Your task to perform on an android device: turn on bluetooth scan Image 0: 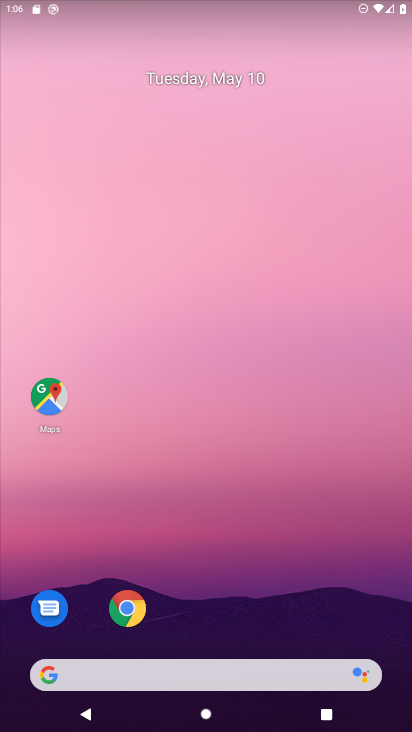
Step 0: drag from (257, 550) to (262, 216)
Your task to perform on an android device: turn on bluetooth scan Image 1: 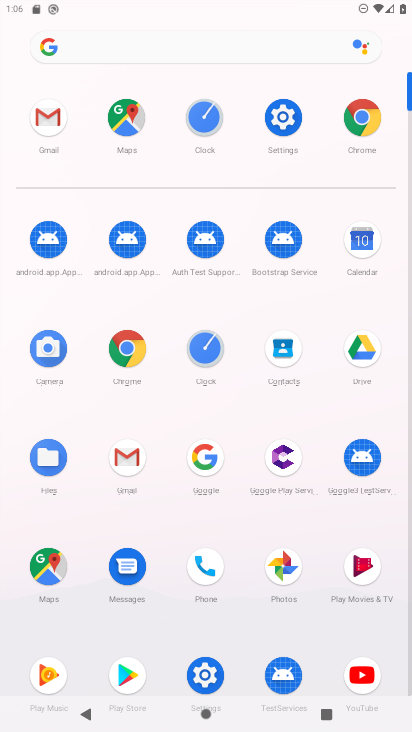
Step 1: click (206, 674)
Your task to perform on an android device: turn on bluetooth scan Image 2: 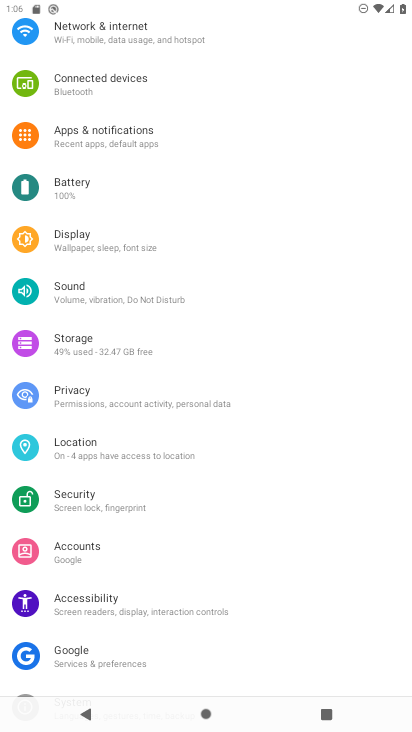
Step 2: click (139, 450)
Your task to perform on an android device: turn on bluetooth scan Image 3: 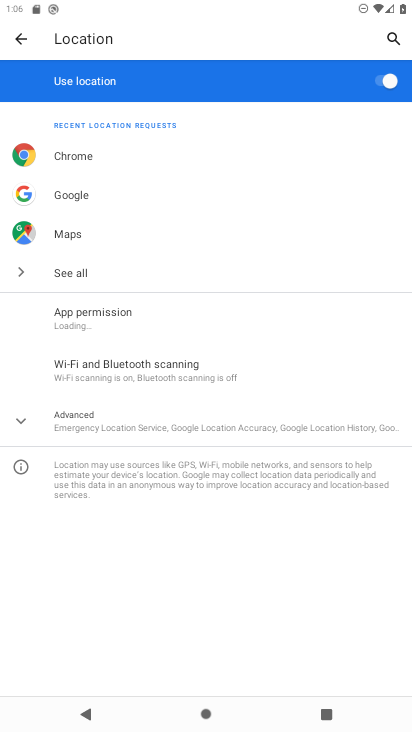
Step 3: click (162, 379)
Your task to perform on an android device: turn on bluetooth scan Image 4: 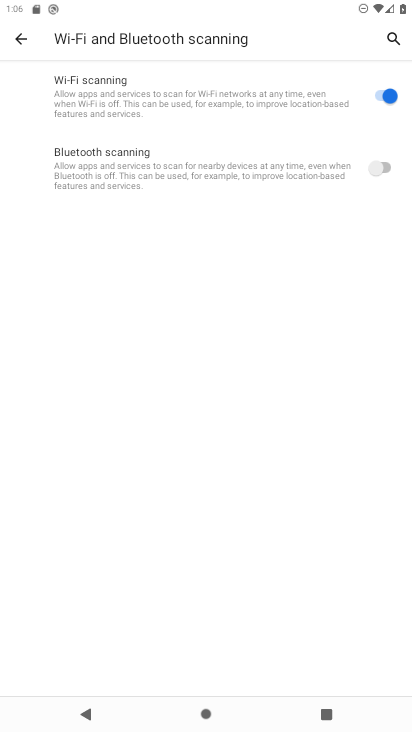
Step 4: click (386, 164)
Your task to perform on an android device: turn on bluetooth scan Image 5: 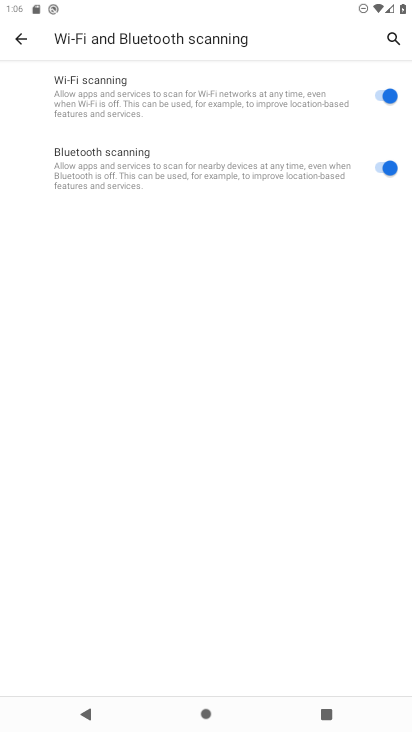
Step 5: task complete